Your task to perform on an android device: find which apps use the phone's location Image 0: 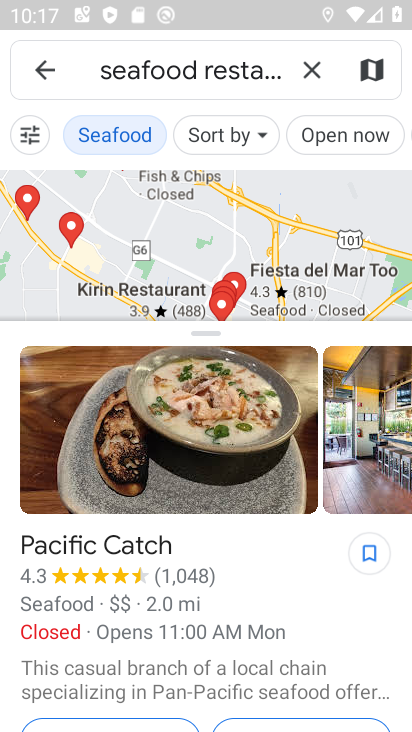
Step 0: press home button
Your task to perform on an android device: find which apps use the phone's location Image 1: 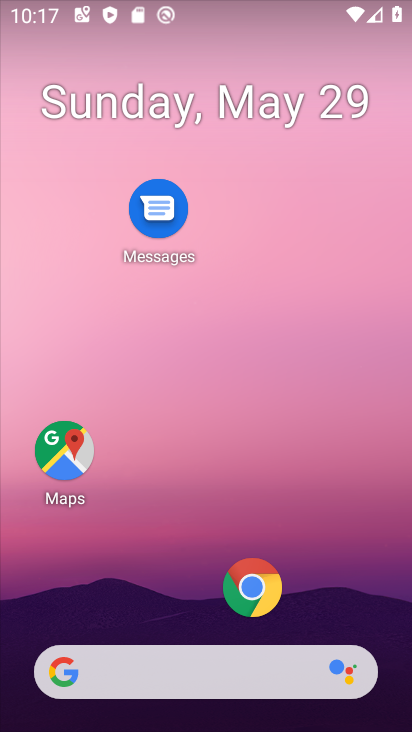
Step 1: drag from (205, 562) to (302, 77)
Your task to perform on an android device: find which apps use the phone's location Image 2: 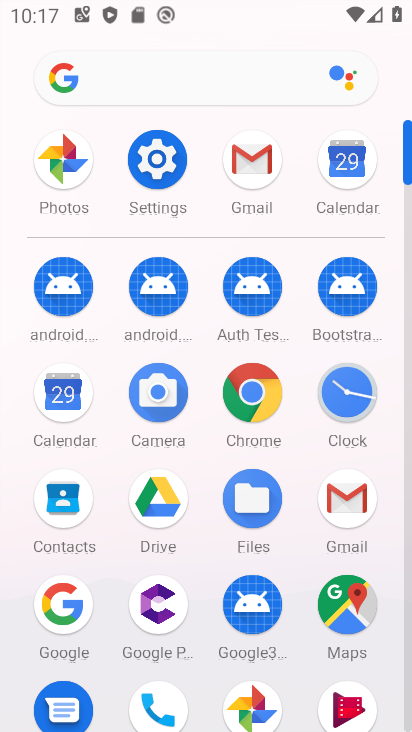
Step 2: click (154, 160)
Your task to perform on an android device: find which apps use the phone's location Image 3: 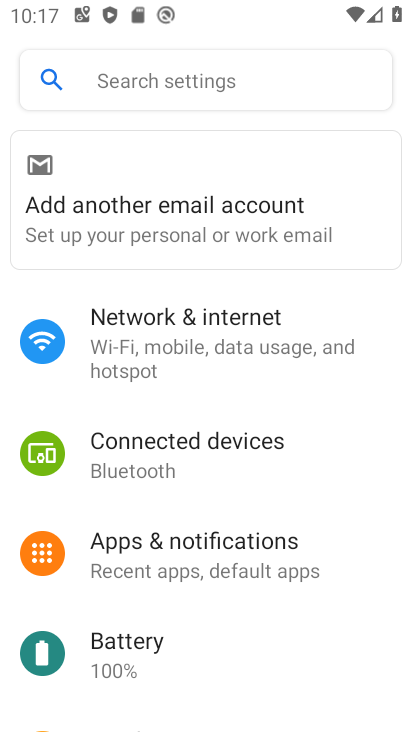
Step 3: drag from (176, 638) to (296, 141)
Your task to perform on an android device: find which apps use the phone's location Image 4: 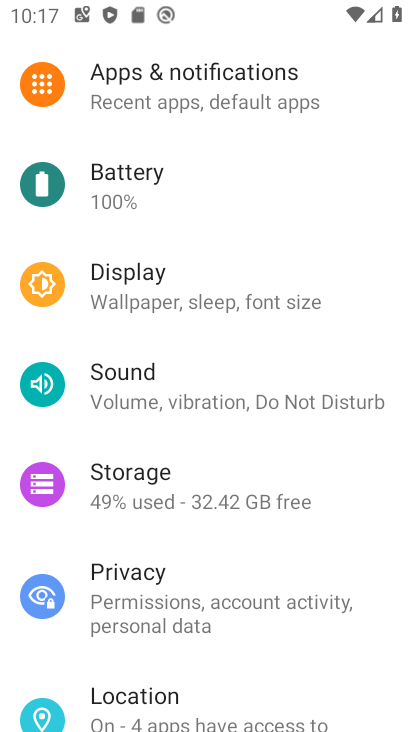
Step 4: click (132, 702)
Your task to perform on an android device: find which apps use the phone's location Image 5: 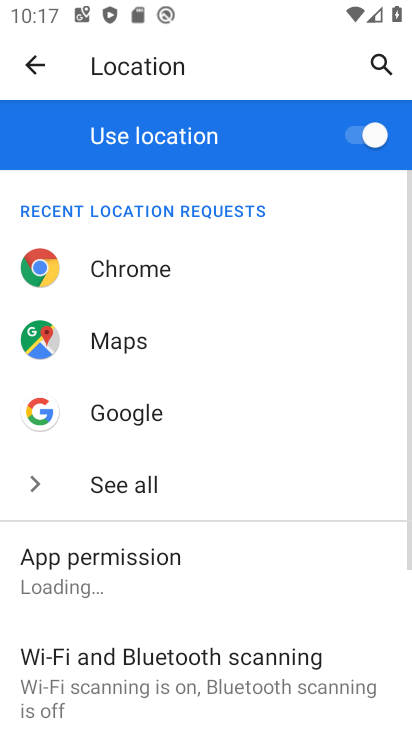
Step 5: click (112, 580)
Your task to perform on an android device: find which apps use the phone's location Image 6: 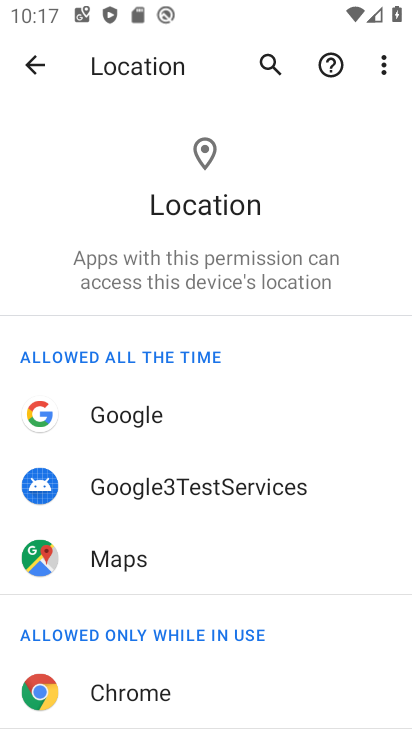
Step 6: task complete